Your task to perform on an android device: open device folders in google photos Image 0: 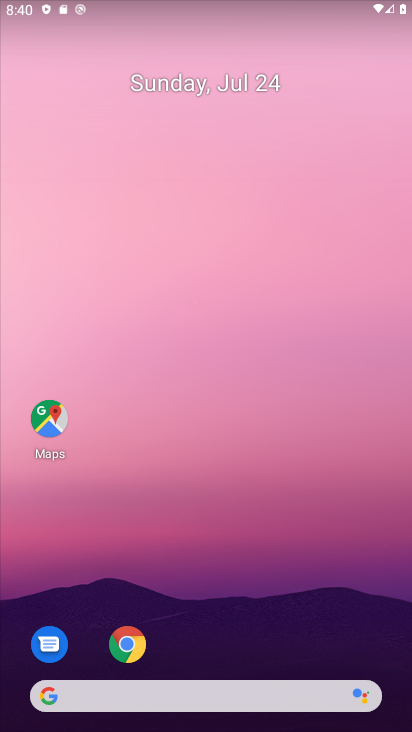
Step 0: drag from (294, 661) to (315, 129)
Your task to perform on an android device: open device folders in google photos Image 1: 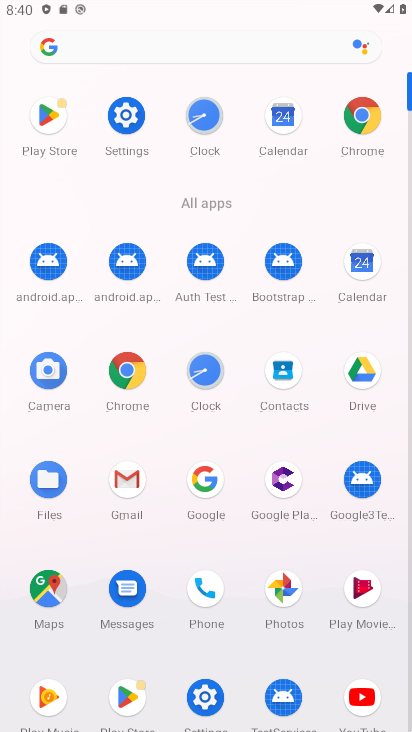
Step 1: click (278, 599)
Your task to perform on an android device: open device folders in google photos Image 2: 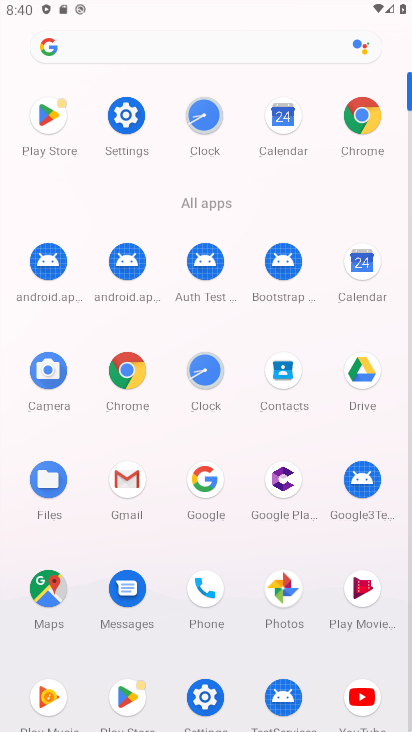
Step 2: click (278, 598)
Your task to perform on an android device: open device folders in google photos Image 3: 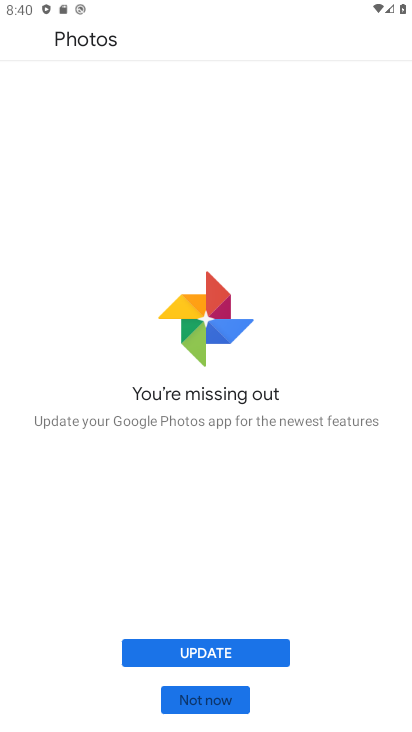
Step 3: click (206, 691)
Your task to perform on an android device: open device folders in google photos Image 4: 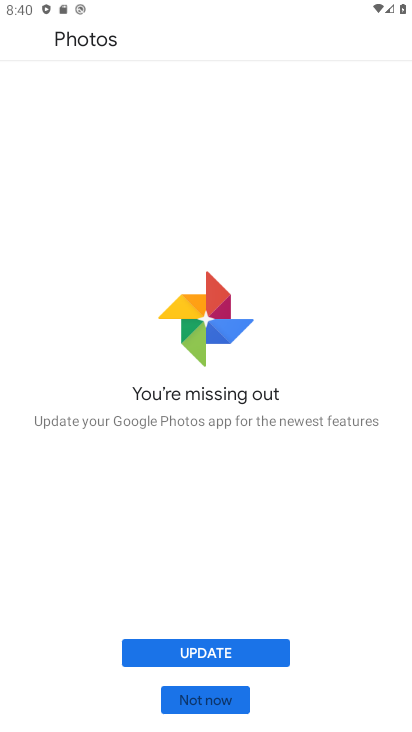
Step 4: click (206, 691)
Your task to perform on an android device: open device folders in google photos Image 5: 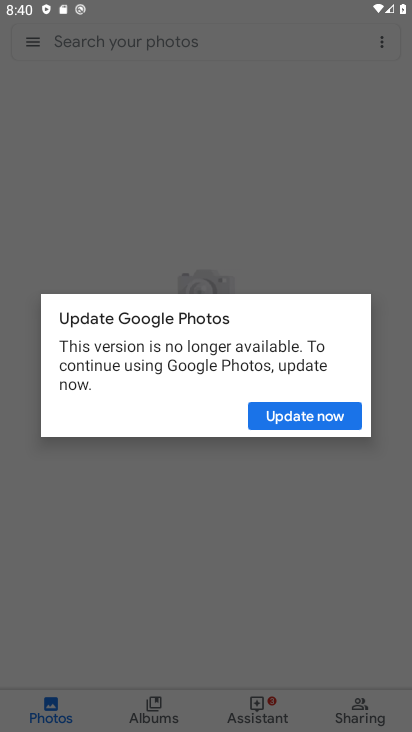
Step 5: click (297, 414)
Your task to perform on an android device: open device folders in google photos Image 6: 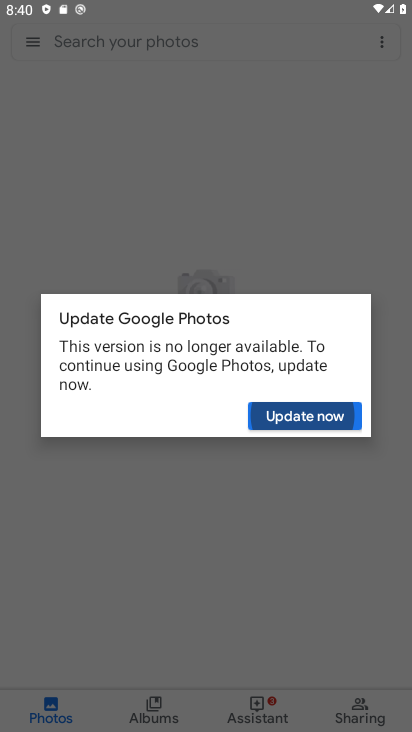
Step 6: click (297, 414)
Your task to perform on an android device: open device folders in google photos Image 7: 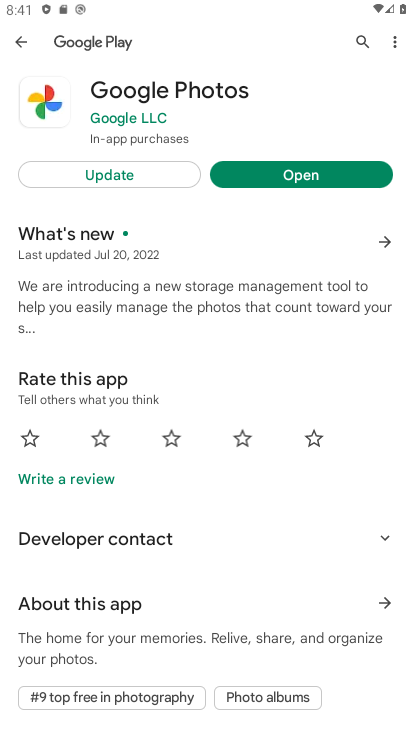
Step 7: click (128, 172)
Your task to perform on an android device: open device folders in google photos Image 8: 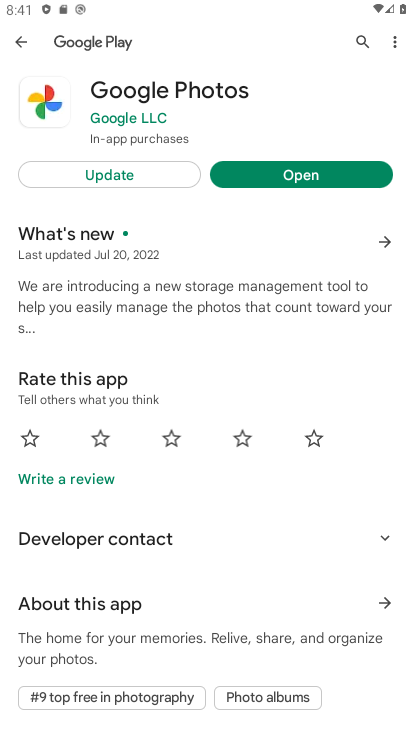
Step 8: click (130, 169)
Your task to perform on an android device: open device folders in google photos Image 9: 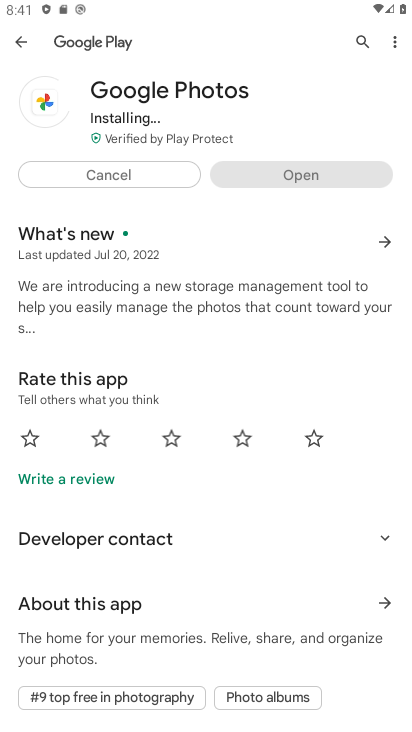
Step 9: click (300, 169)
Your task to perform on an android device: open device folders in google photos Image 10: 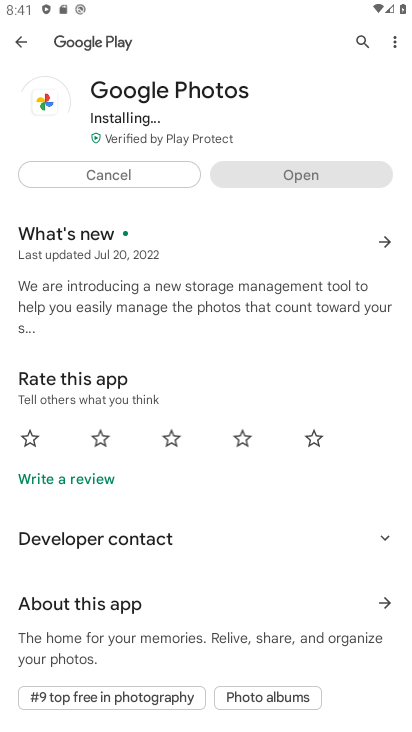
Step 10: click (302, 165)
Your task to perform on an android device: open device folders in google photos Image 11: 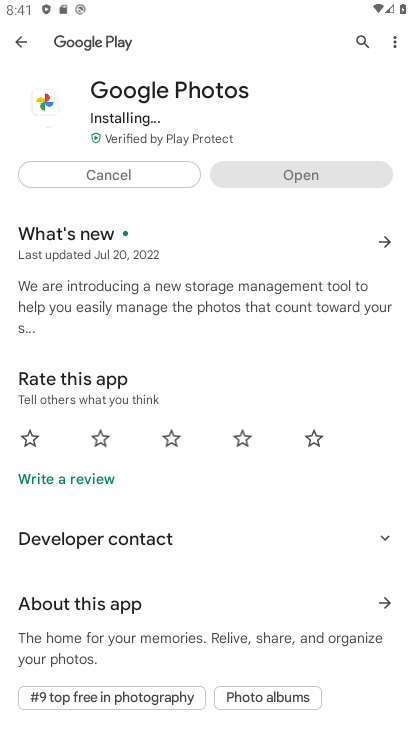
Step 11: click (302, 165)
Your task to perform on an android device: open device folders in google photos Image 12: 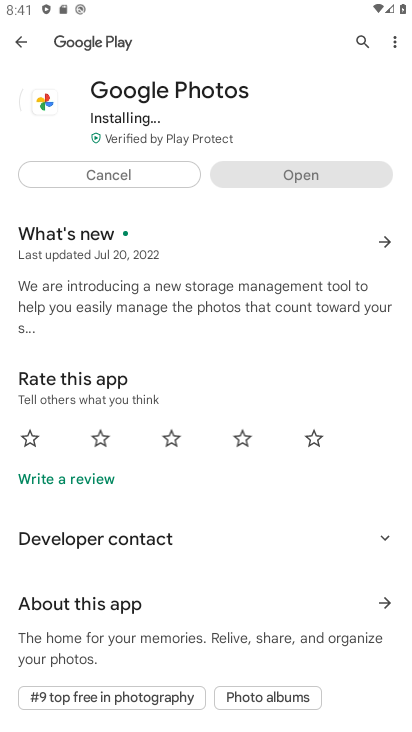
Step 12: click (302, 165)
Your task to perform on an android device: open device folders in google photos Image 13: 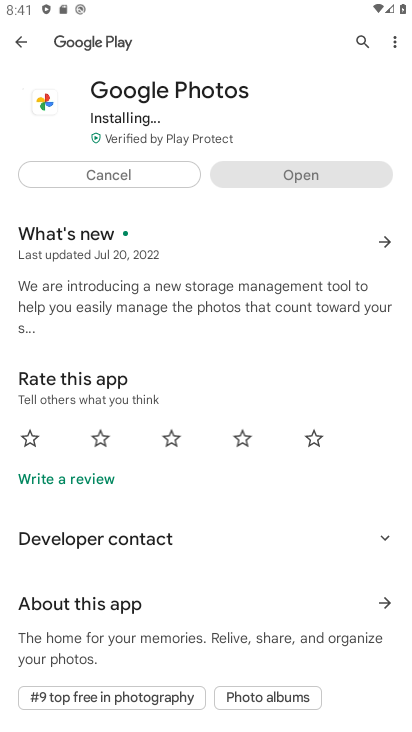
Step 13: click (293, 178)
Your task to perform on an android device: open device folders in google photos Image 14: 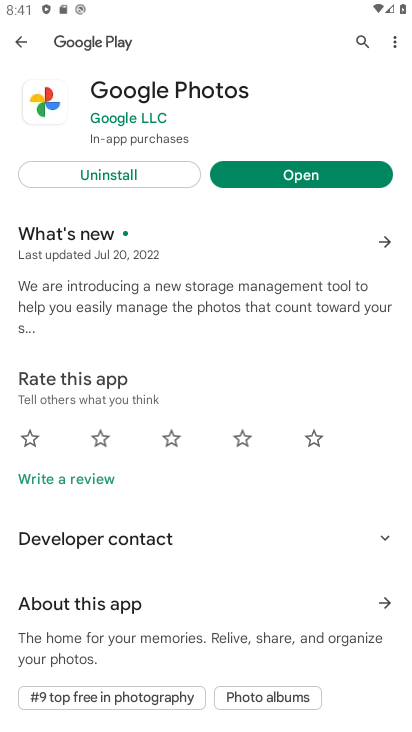
Step 14: click (304, 171)
Your task to perform on an android device: open device folders in google photos Image 15: 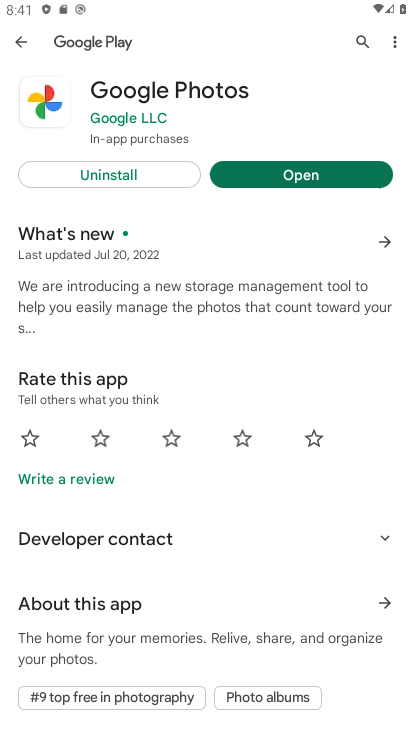
Step 15: click (309, 171)
Your task to perform on an android device: open device folders in google photos Image 16: 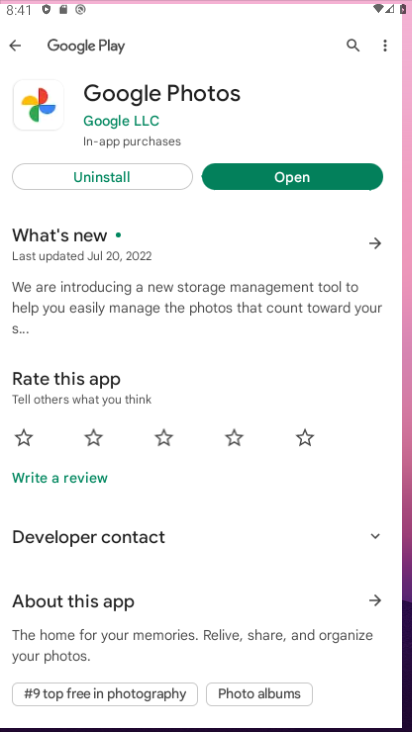
Step 16: click (310, 171)
Your task to perform on an android device: open device folders in google photos Image 17: 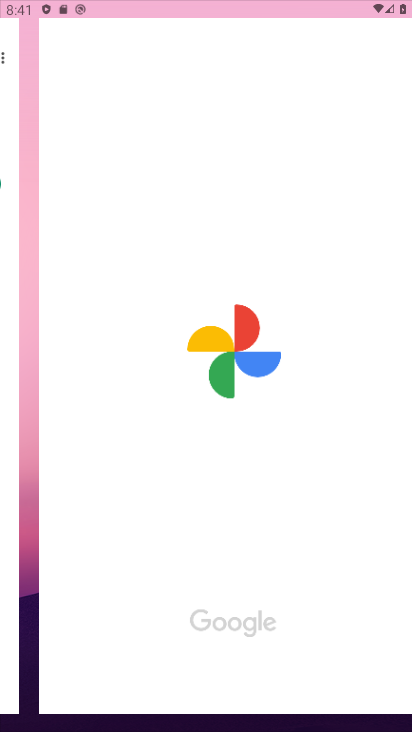
Step 17: click (311, 172)
Your task to perform on an android device: open device folders in google photos Image 18: 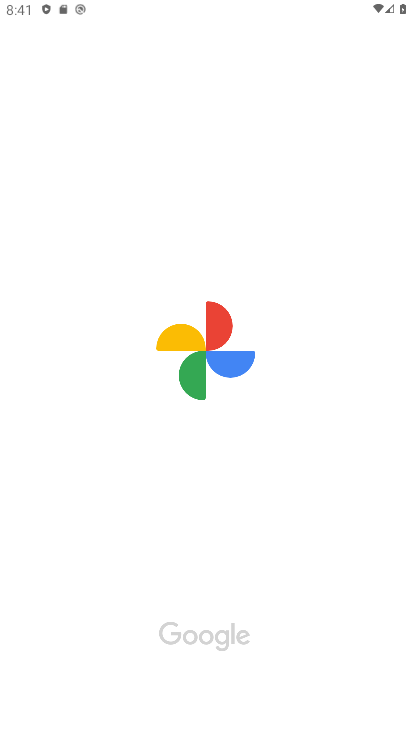
Step 18: click (312, 174)
Your task to perform on an android device: open device folders in google photos Image 19: 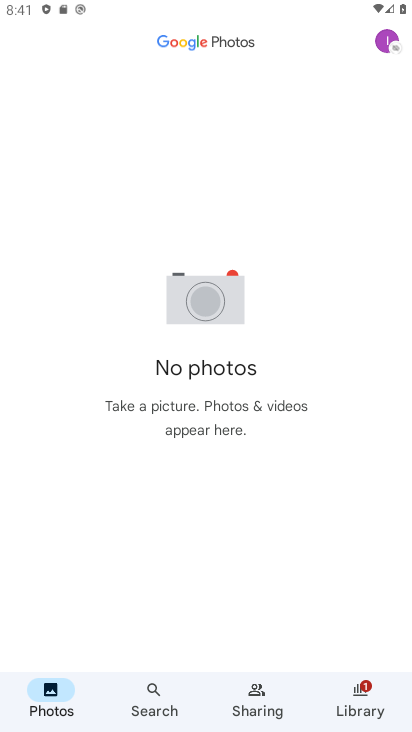
Step 19: task complete